Your task to perform on an android device: Search for Italian restaurants on Maps Image 0: 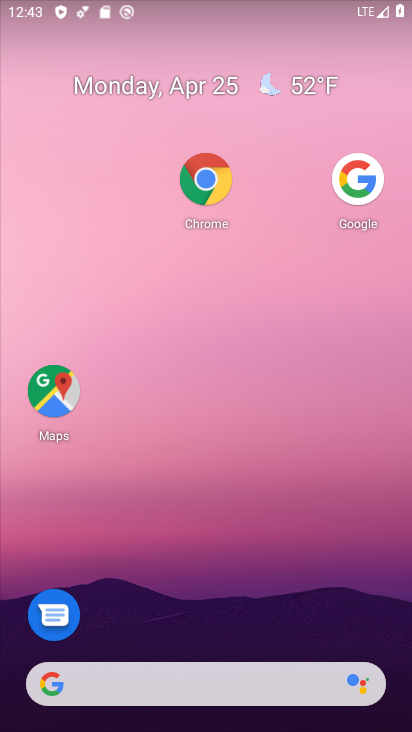
Step 0: drag from (149, 671) to (297, 155)
Your task to perform on an android device: Search for Italian restaurants on Maps Image 1: 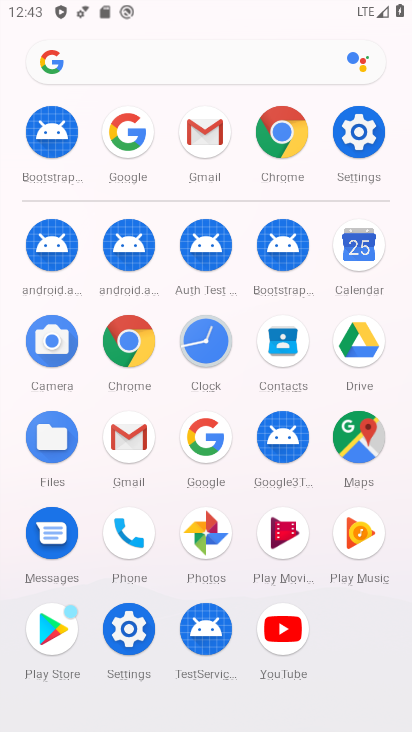
Step 1: click (357, 444)
Your task to perform on an android device: Search for Italian restaurants on Maps Image 2: 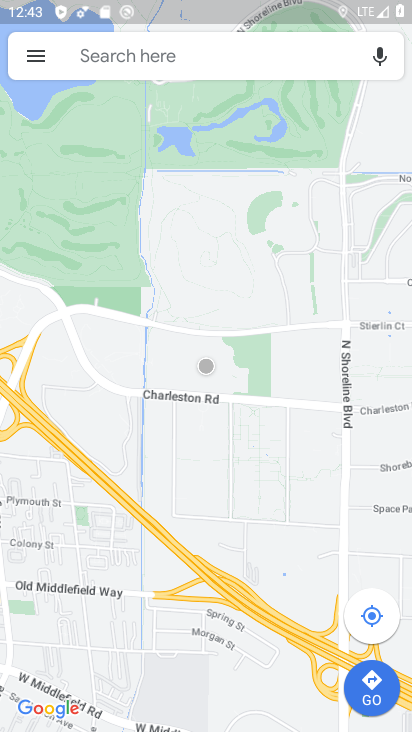
Step 2: click (114, 57)
Your task to perform on an android device: Search for Italian restaurants on Maps Image 3: 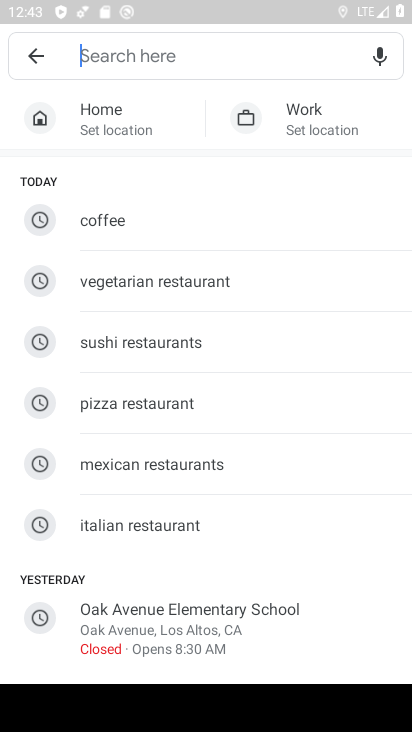
Step 3: click (145, 526)
Your task to perform on an android device: Search for Italian restaurants on Maps Image 4: 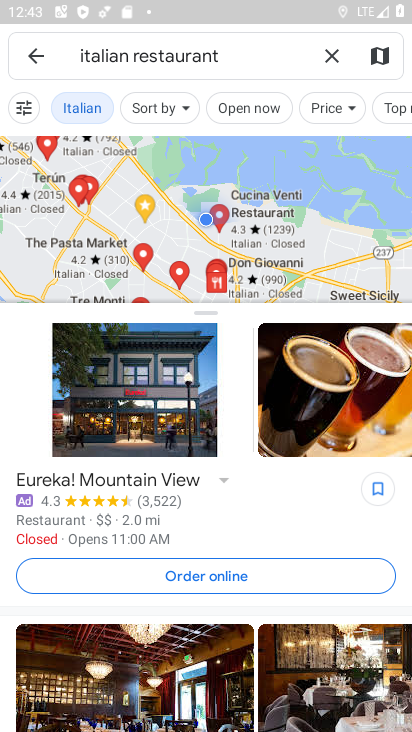
Step 4: task complete